Your task to perform on an android device: Open privacy settings Image 0: 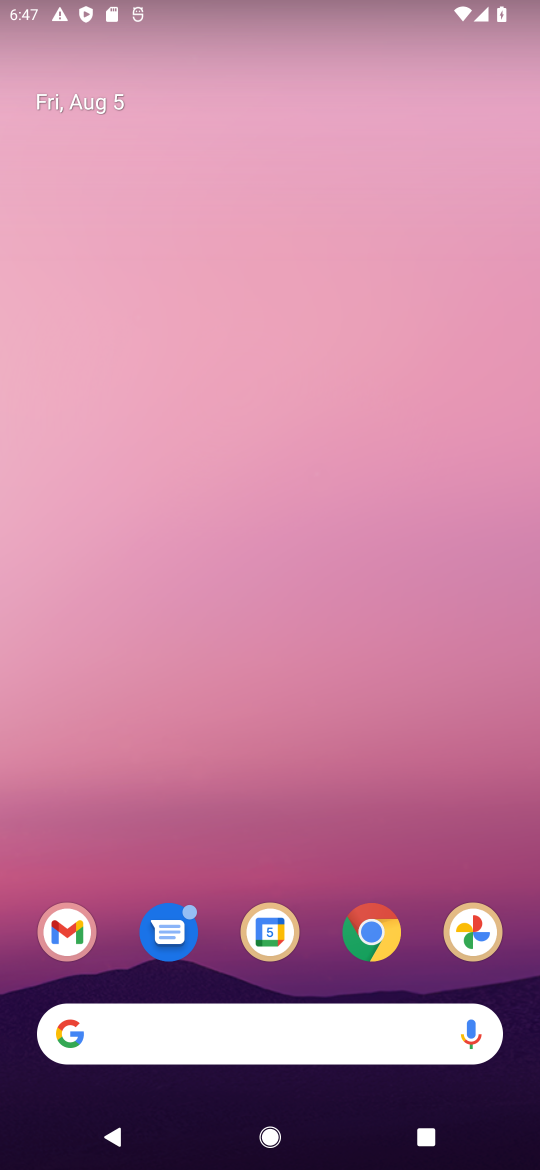
Step 0: drag from (251, 1038) to (530, 106)
Your task to perform on an android device: Open privacy settings Image 1: 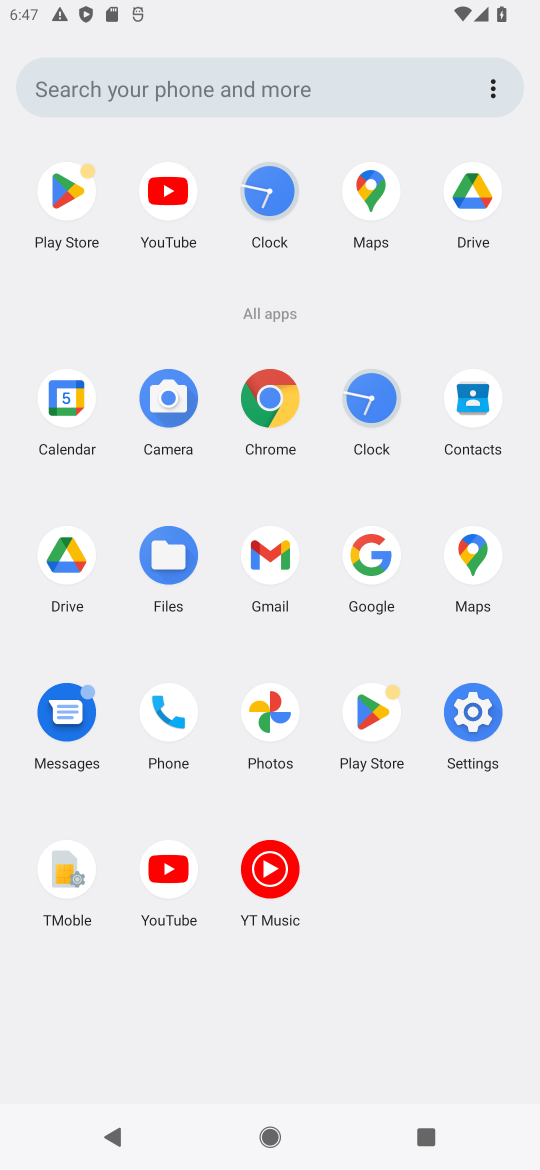
Step 1: click (471, 717)
Your task to perform on an android device: Open privacy settings Image 2: 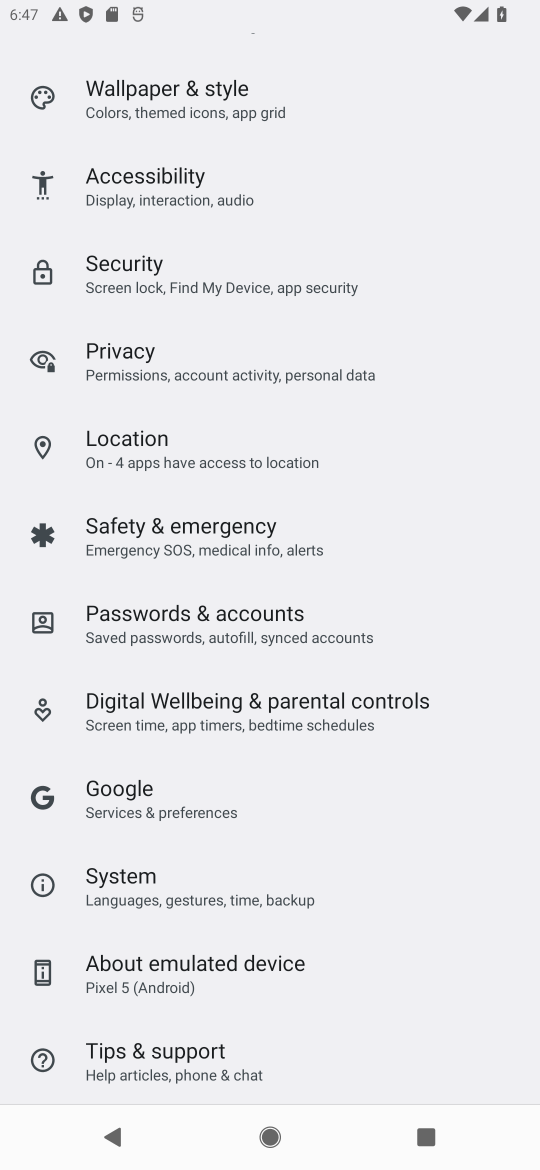
Step 2: click (136, 350)
Your task to perform on an android device: Open privacy settings Image 3: 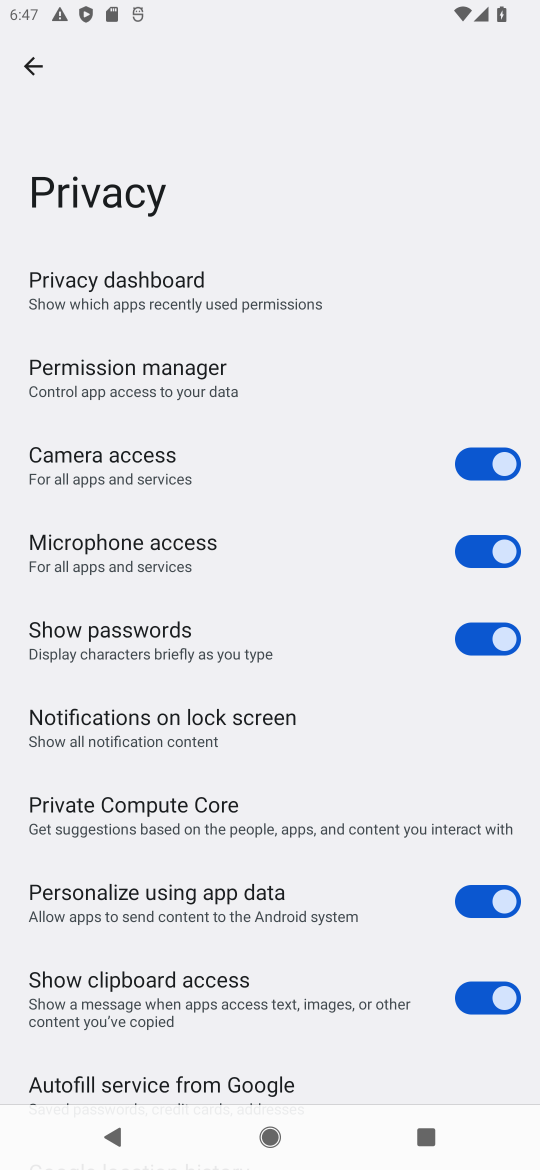
Step 3: task complete